Your task to perform on an android device: turn on wifi Image 0: 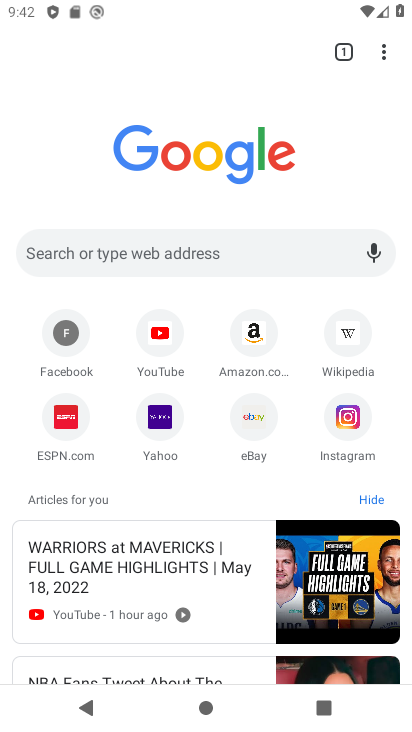
Step 0: press home button
Your task to perform on an android device: turn on wifi Image 1: 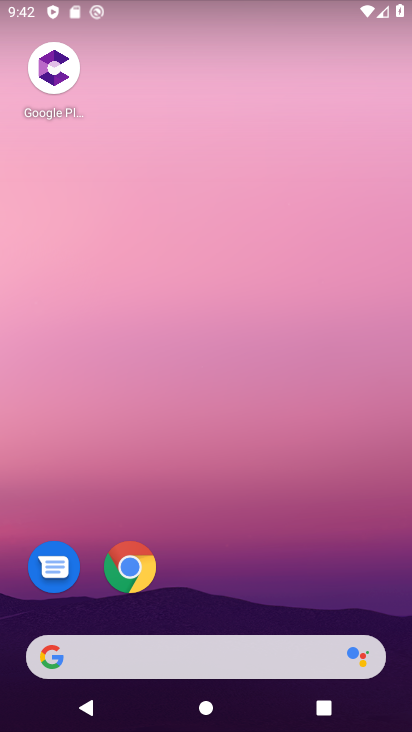
Step 1: press home button
Your task to perform on an android device: turn on wifi Image 2: 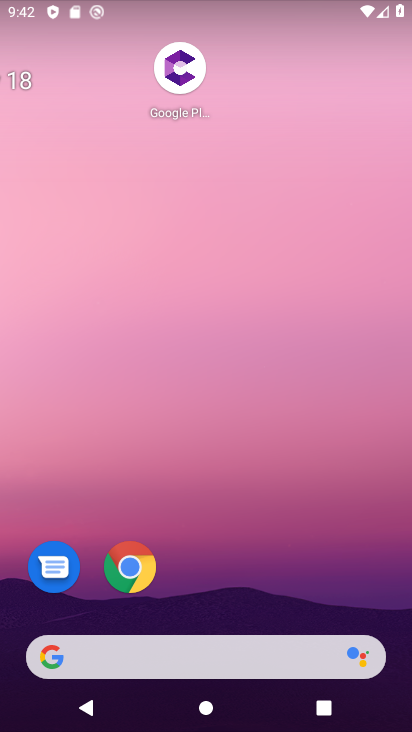
Step 2: drag from (235, 220) to (183, 41)
Your task to perform on an android device: turn on wifi Image 3: 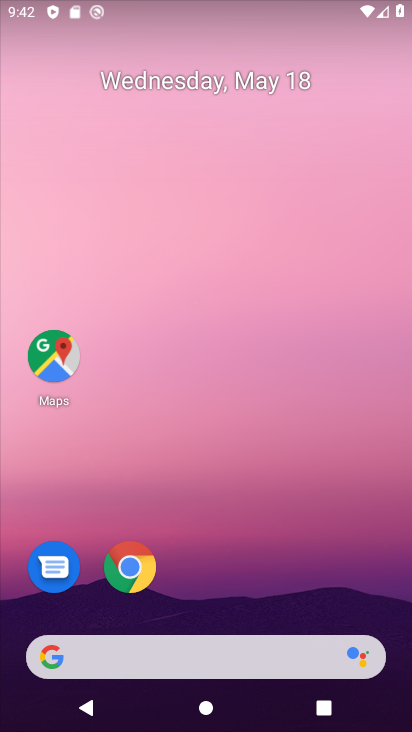
Step 3: drag from (213, 591) to (221, 90)
Your task to perform on an android device: turn on wifi Image 4: 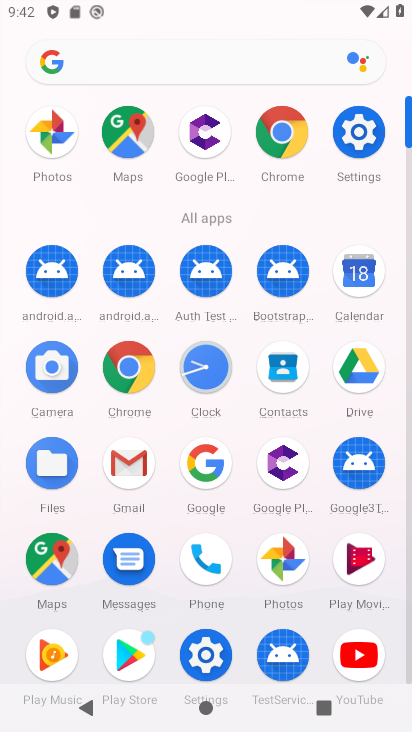
Step 4: click (355, 143)
Your task to perform on an android device: turn on wifi Image 5: 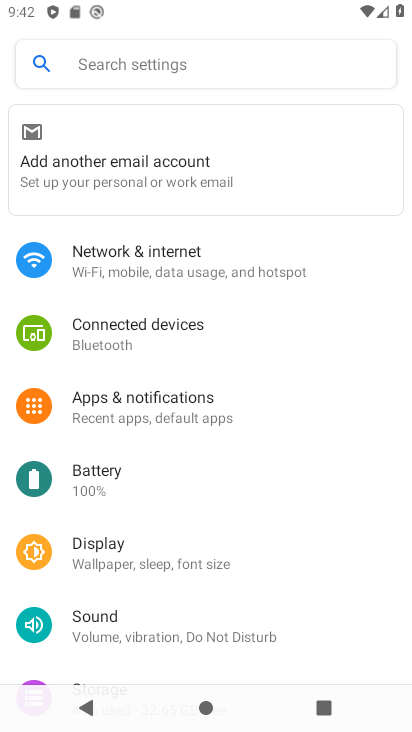
Step 5: click (179, 258)
Your task to perform on an android device: turn on wifi Image 6: 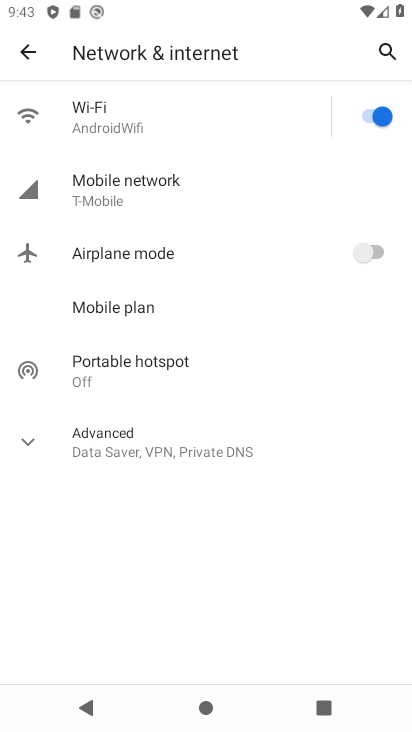
Step 6: task complete